Your task to perform on an android device: Do I have any events tomorrow? Image 0: 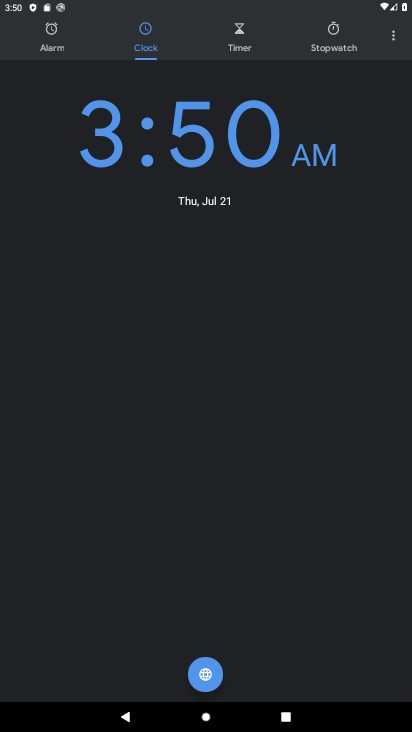
Step 0: press home button
Your task to perform on an android device: Do I have any events tomorrow? Image 1: 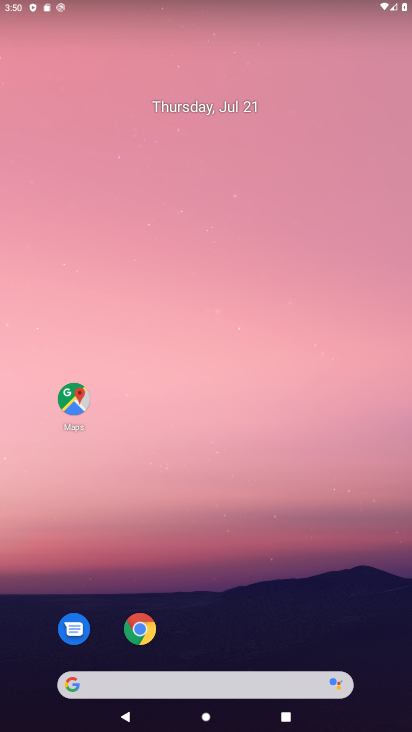
Step 1: drag from (373, 644) to (289, 273)
Your task to perform on an android device: Do I have any events tomorrow? Image 2: 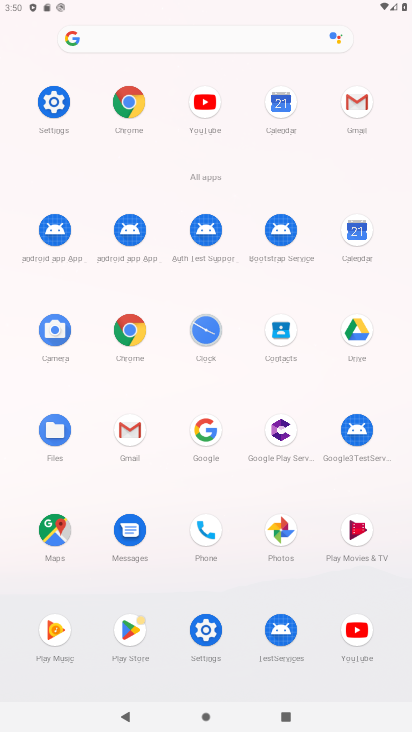
Step 2: click (359, 224)
Your task to perform on an android device: Do I have any events tomorrow? Image 3: 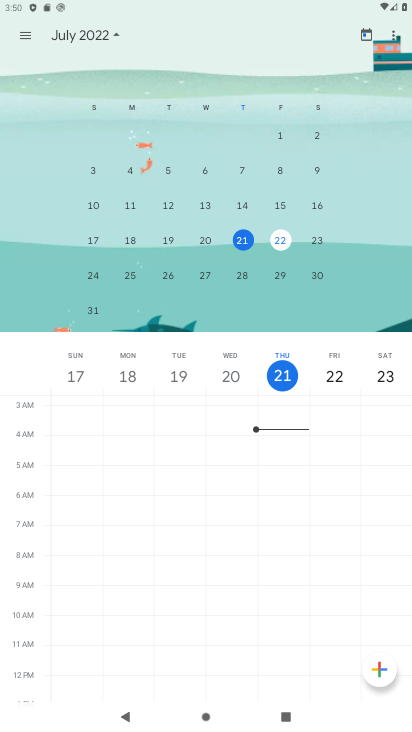
Step 3: click (22, 28)
Your task to perform on an android device: Do I have any events tomorrow? Image 4: 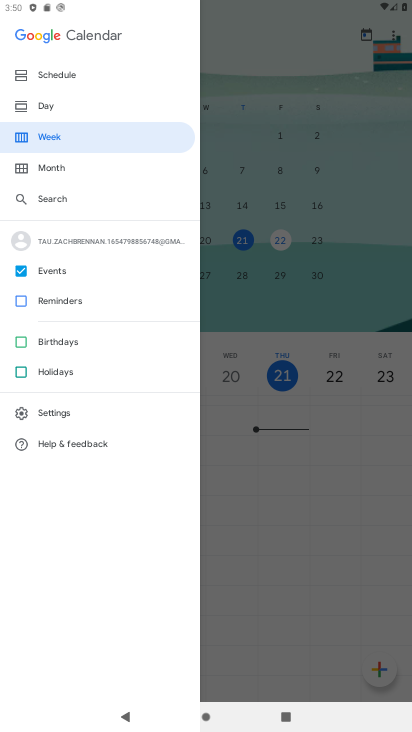
Step 4: click (60, 108)
Your task to perform on an android device: Do I have any events tomorrow? Image 5: 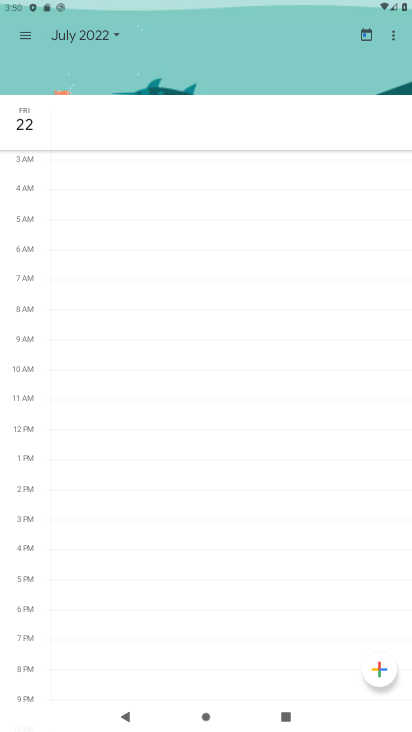
Step 5: task complete